Your task to perform on an android device: Open battery settings Image 0: 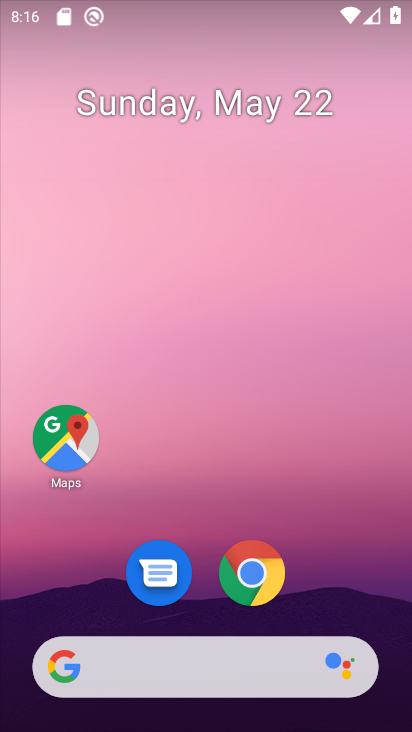
Step 0: click (199, 0)
Your task to perform on an android device: Open battery settings Image 1: 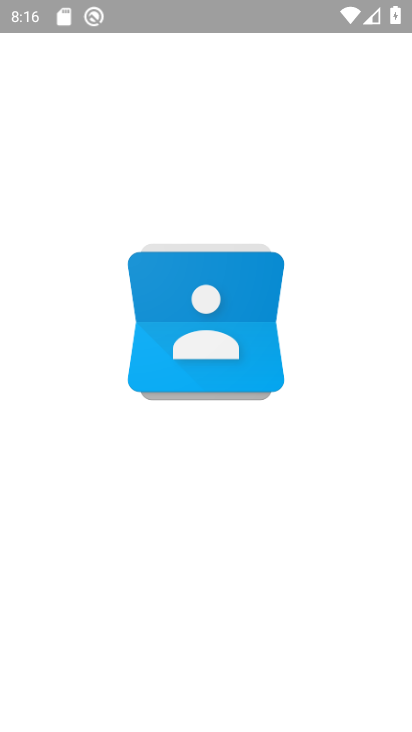
Step 1: drag from (311, 604) to (306, 28)
Your task to perform on an android device: Open battery settings Image 2: 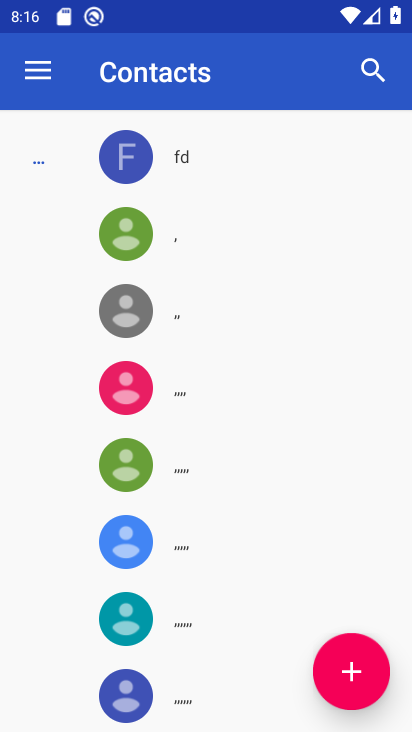
Step 2: drag from (219, 533) to (294, 138)
Your task to perform on an android device: Open battery settings Image 3: 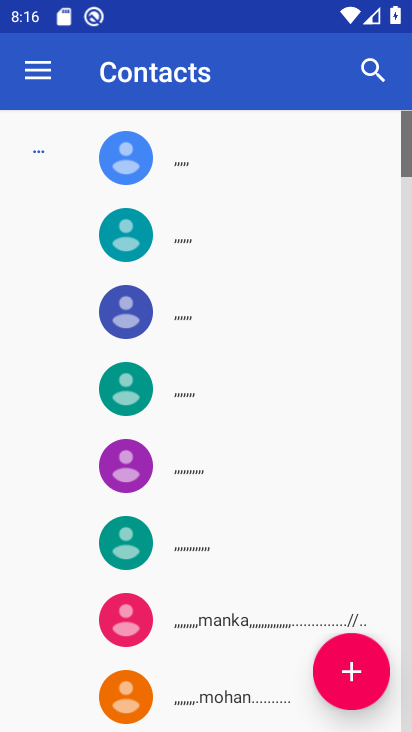
Step 3: press home button
Your task to perform on an android device: Open battery settings Image 4: 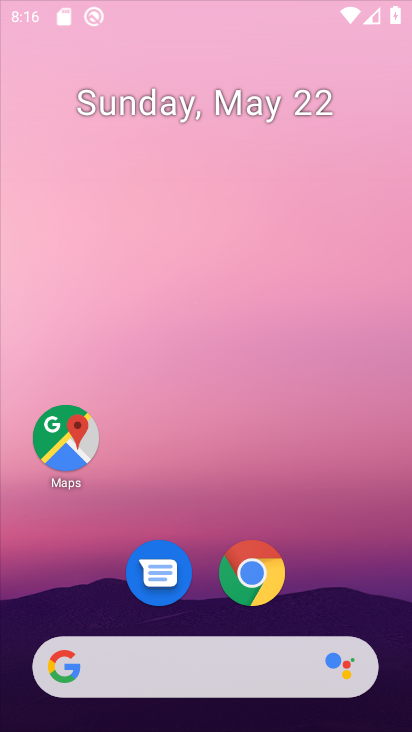
Step 4: drag from (232, 530) to (320, 0)
Your task to perform on an android device: Open battery settings Image 5: 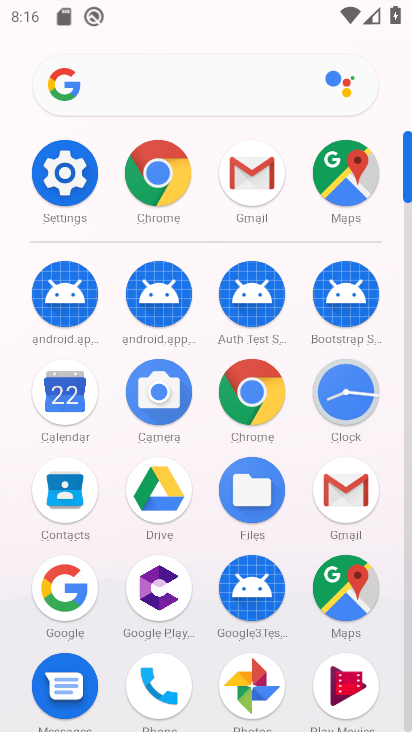
Step 5: click (73, 149)
Your task to perform on an android device: Open battery settings Image 6: 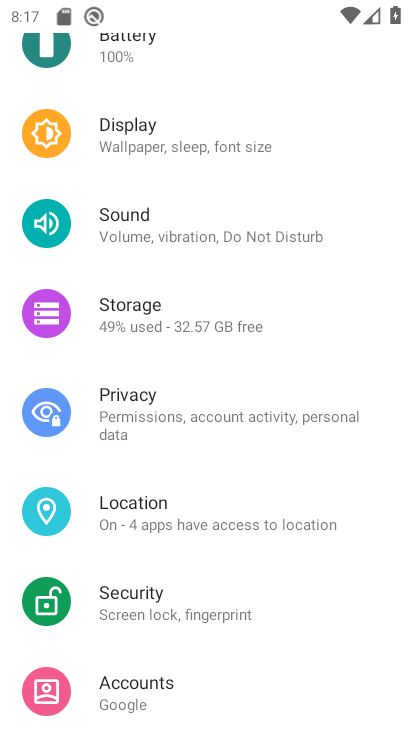
Step 6: click (143, 36)
Your task to perform on an android device: Open battery settings Image 7: 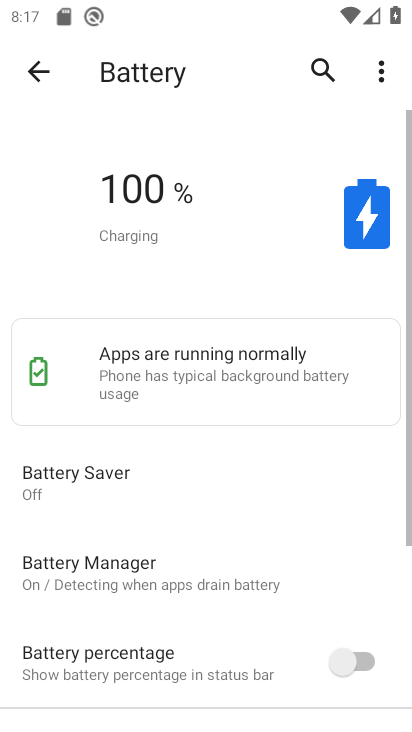
Step 7: task complete